Your task to perform on an android device: Open Android settings Image 0: 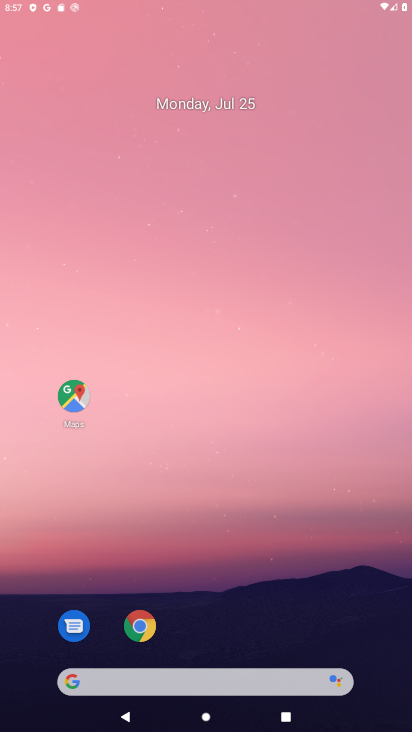
Step 0: click (143, 629)
Your task to perform on an android device: Open Android settings Image 1: 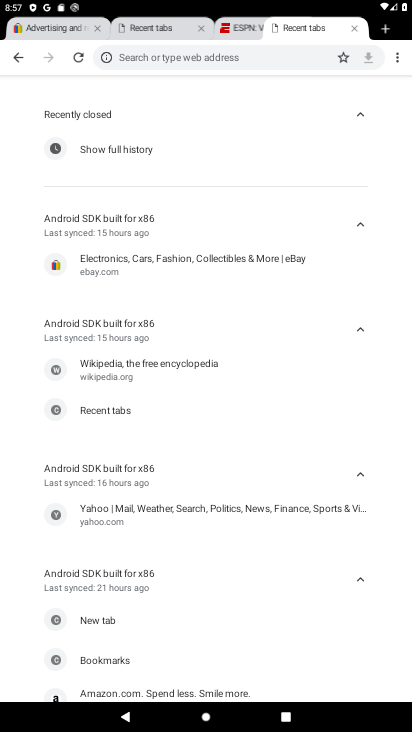
Step 1: press home button
Your task to perform on an android device: Open Android settings Image 2: 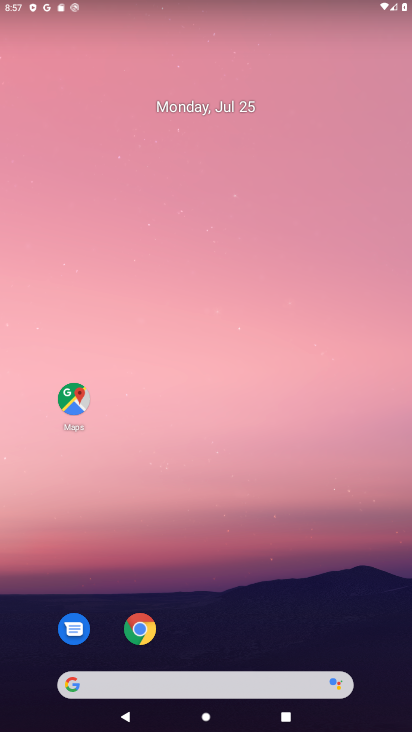
Step 2: drag from (205, 638) to (253, 68)
Your task to perform on an android device: Open Android settings Image 3: 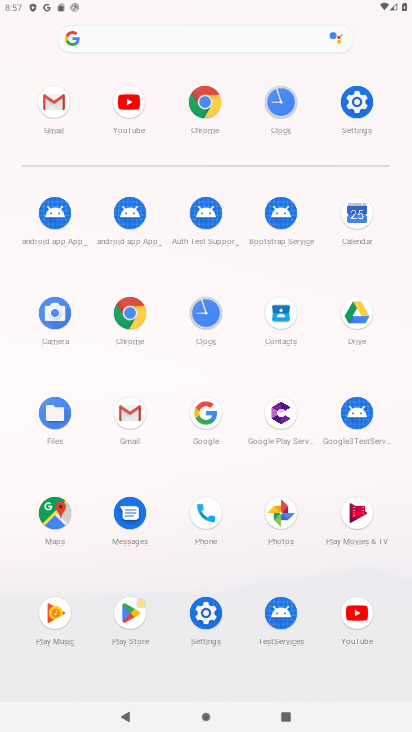
Step 3: click (366, 104)
Your task to perform on an android device: Open Android settings Image 4: 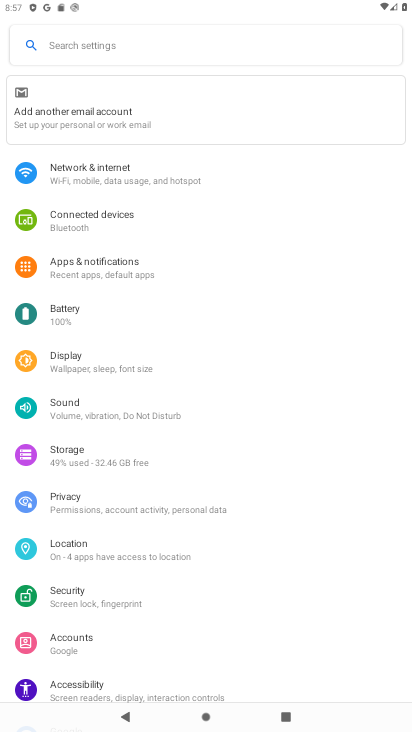
Step 4: task complete